Your task to perform on an android device: Search for the new lego star wars 2021 on Target Image 0: 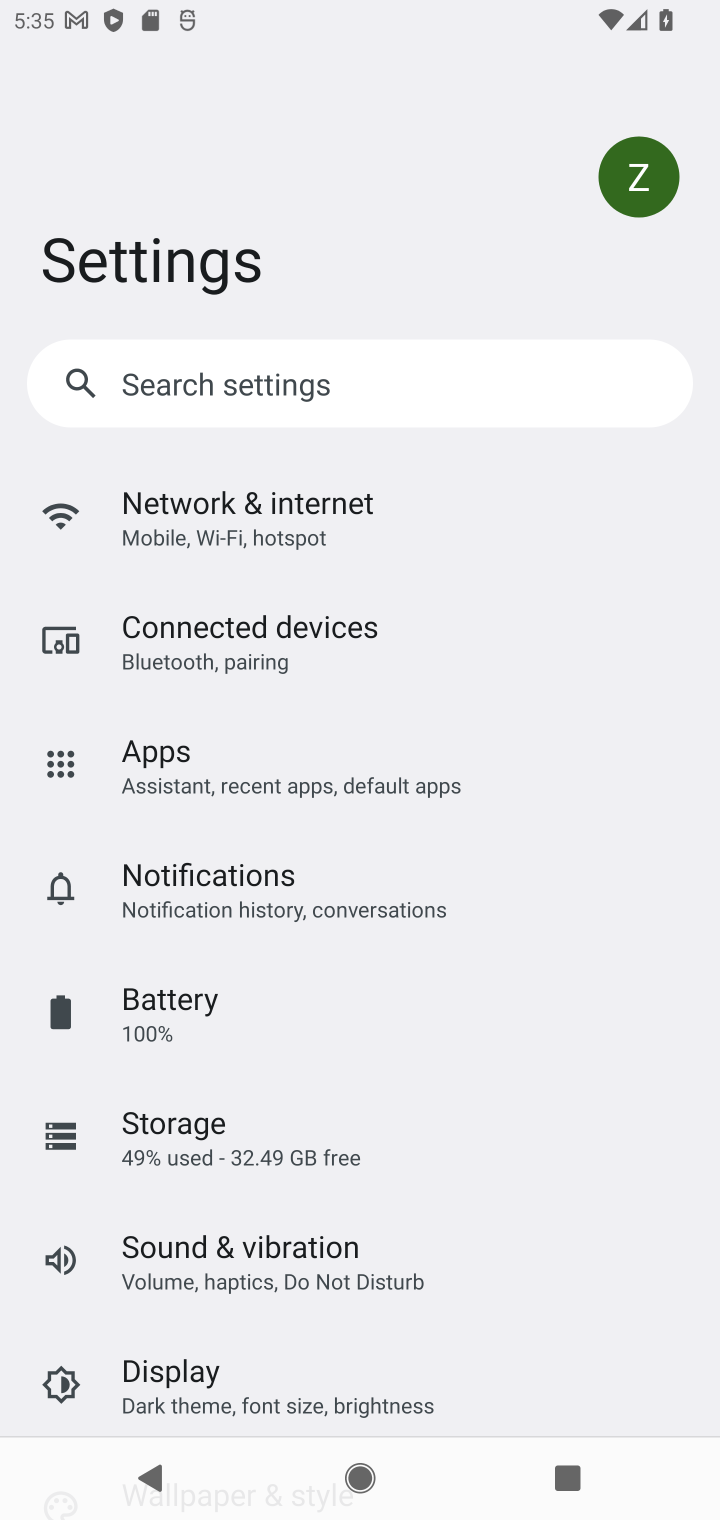
Step 0: press home button
Your task to perform on an android device: Search for the new lego star wars 2021 on Target Image 1: 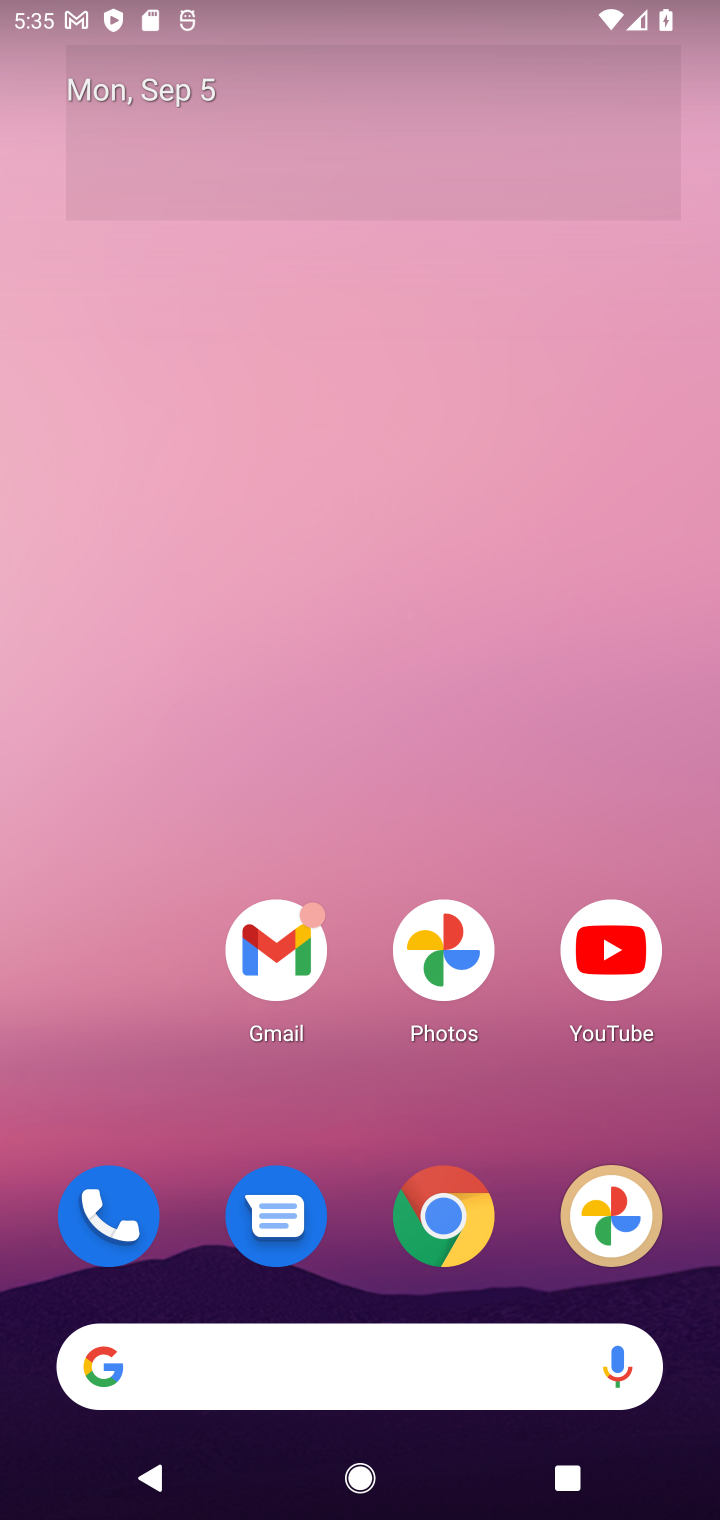
Step 1: click (446, 1233)
Your task to perform on an android device: Search for the new lego star wars 2021 on Target Image 2: 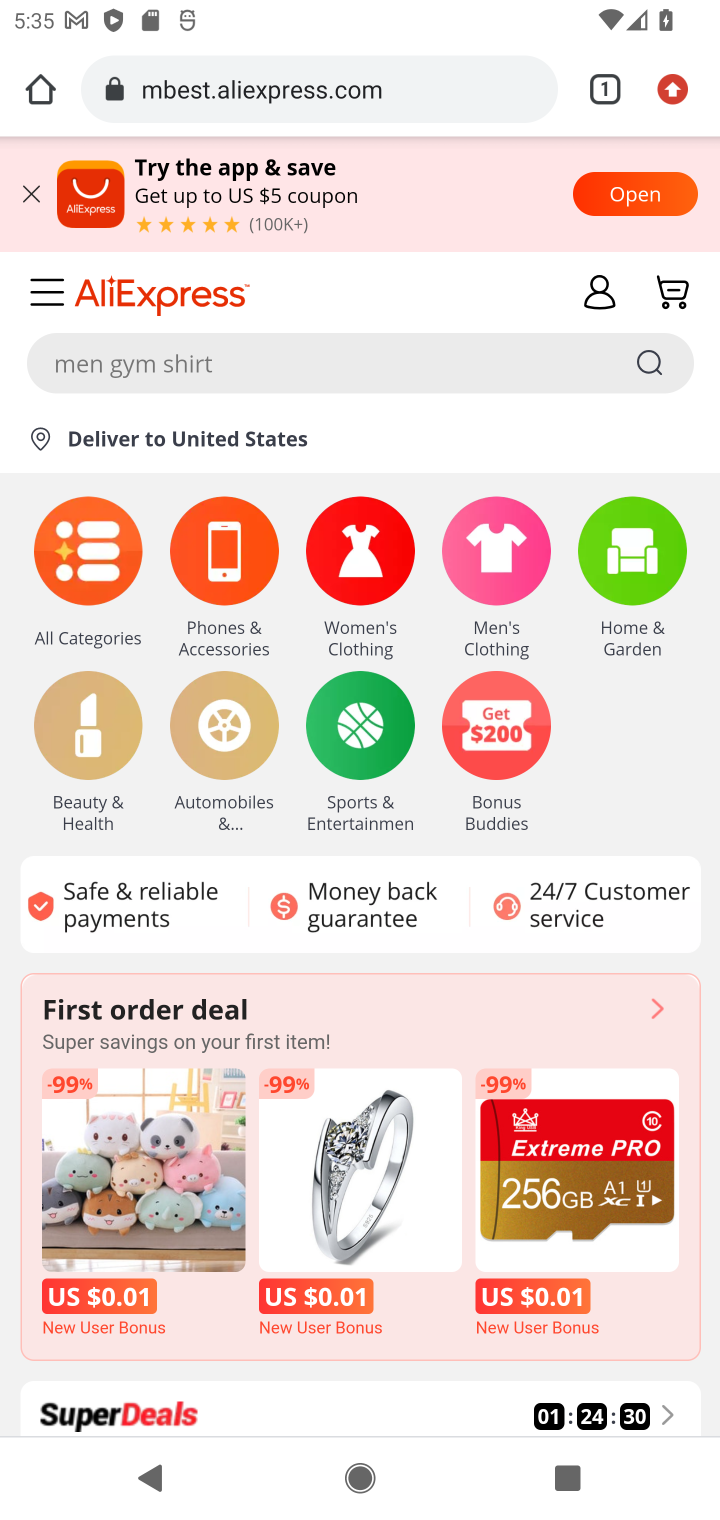
Step 2: click (335, 86)
Your task to perform on an android device: Search for the new lego star wars 2021 on Target Image 3: 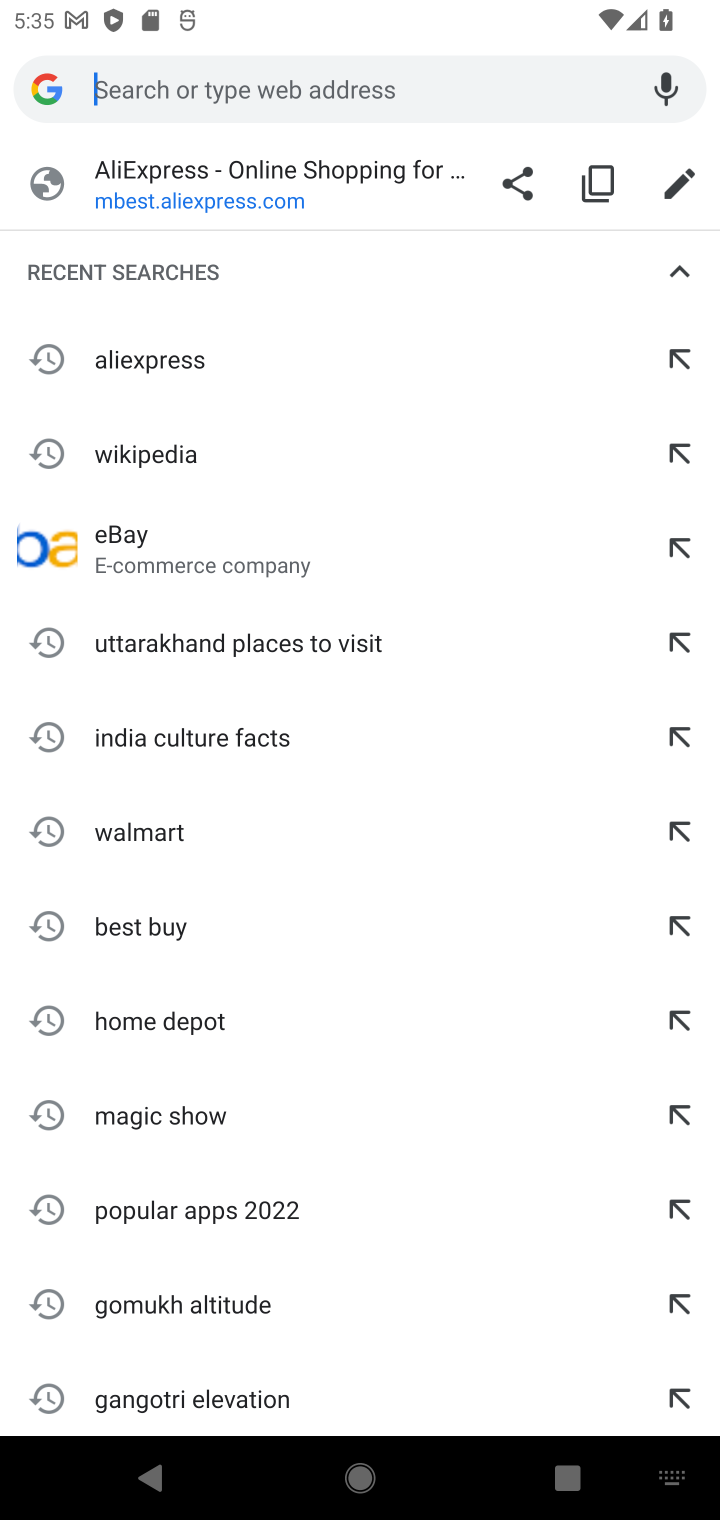
Step 3: type "target"
Your task to perform on an android device: Search for the new lego star wars 2021 on Target Image 4: 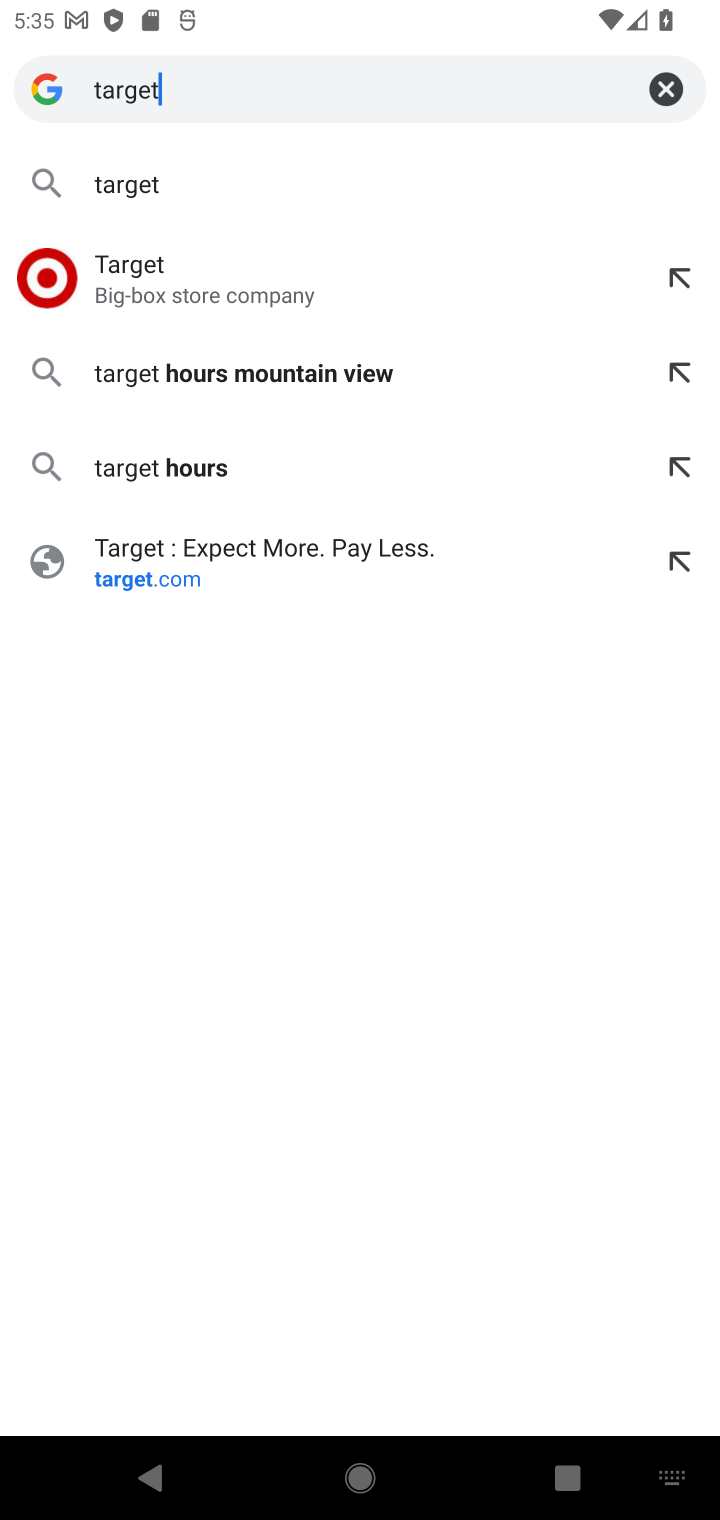
Step 4: click (239, 280)
Your task to perform on an android device: Search for the new lego star wars 2021 on Target Image 5: 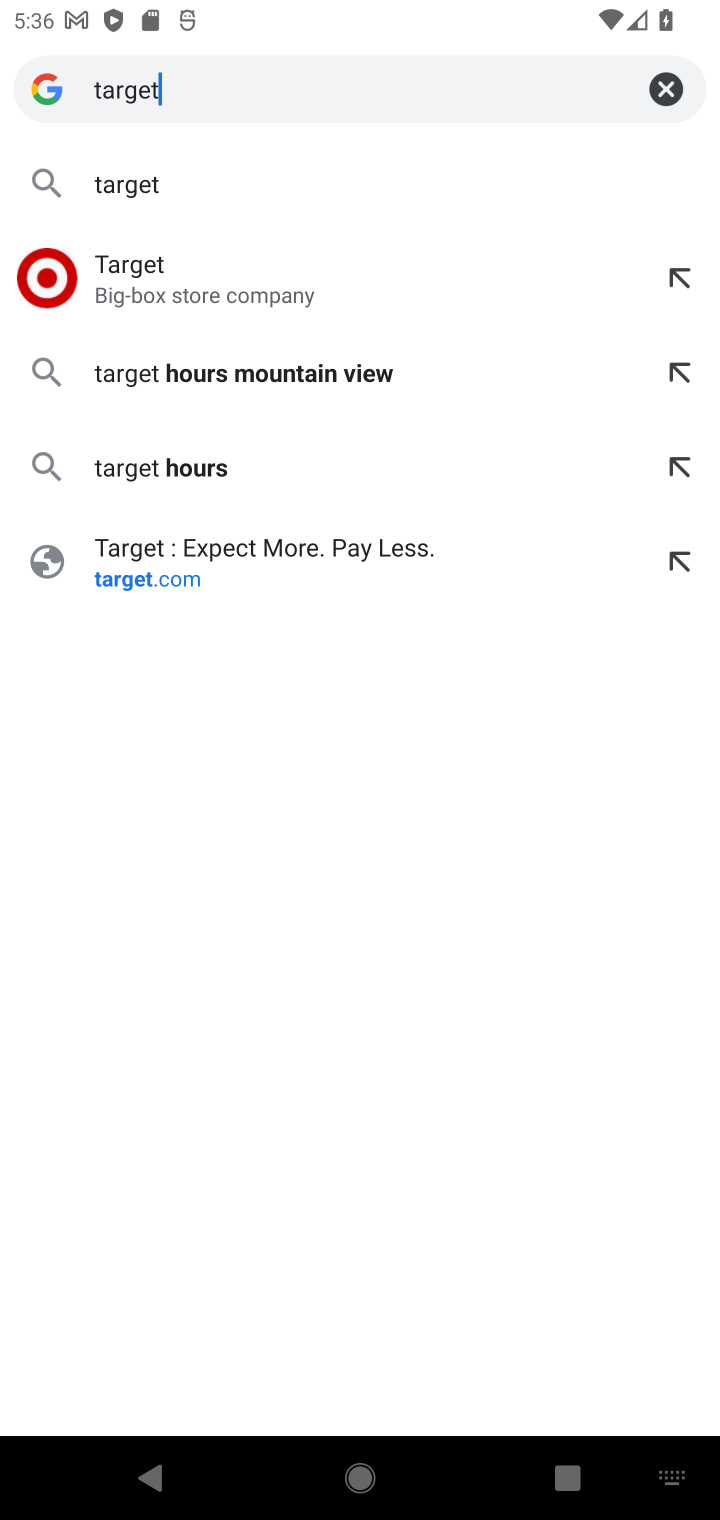
Step 5: click (92, 281)
Your task to perform on an android device: Search for the new lego star wars 2021 on Target Image 6: 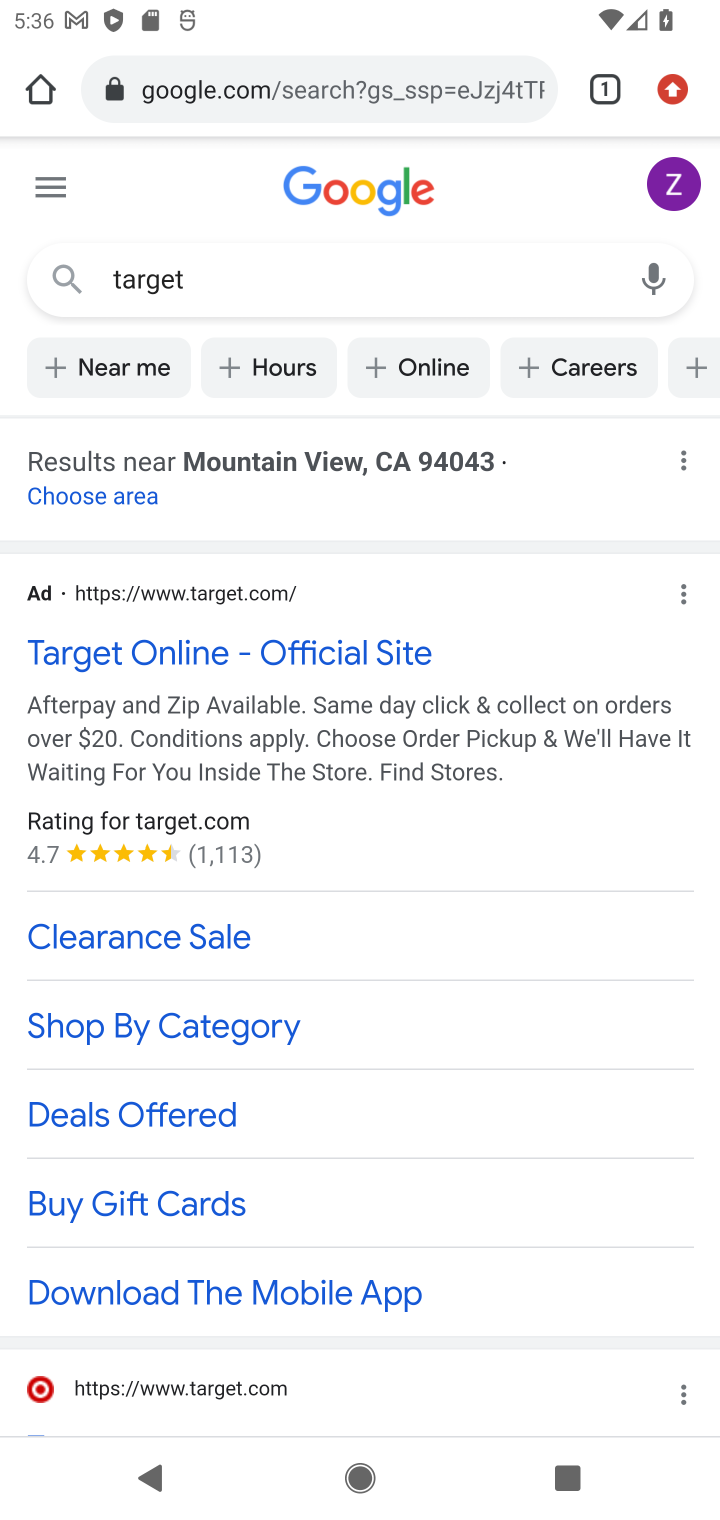
Step 6: click (179, 1396)
Your task to perform on an android device: Search for the new lego star wars 2021 on Target Image 7: 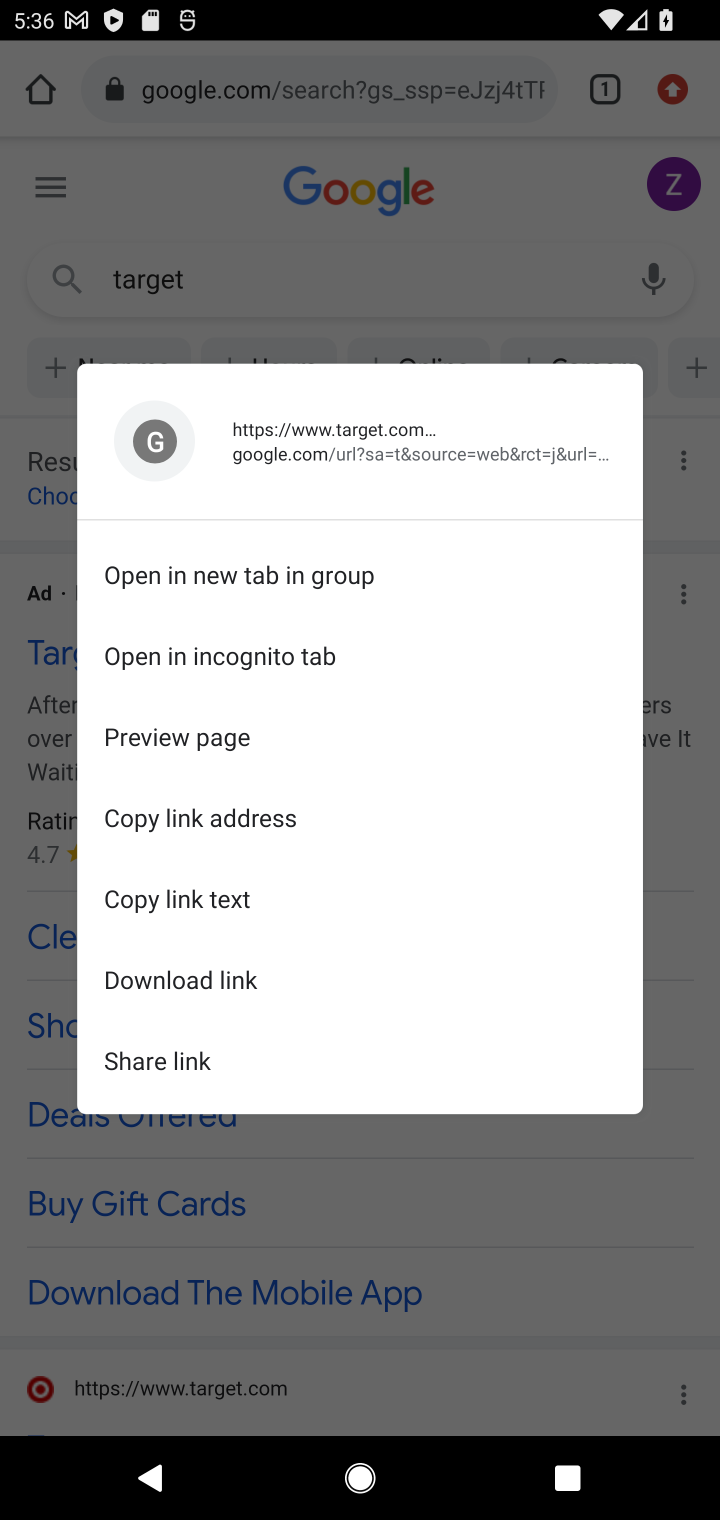
Step 7: click (573, 1239)
Your task to perform on an android device: Search for the new lego star wars 2021 on Target Image 8: 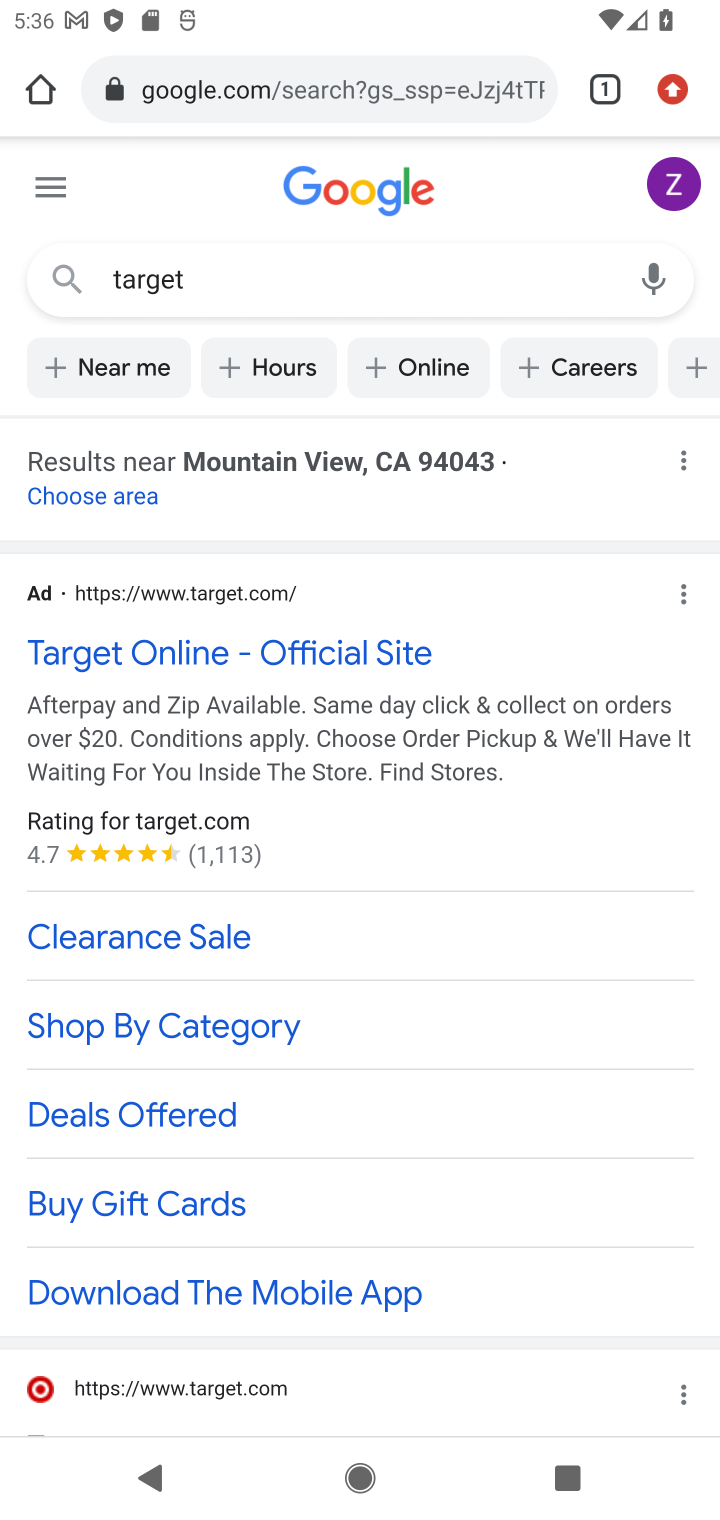
Step 8: click (202, 655)
Your task to perform on an android device: Search for the new lego star wars 2021 on Target Image 9: 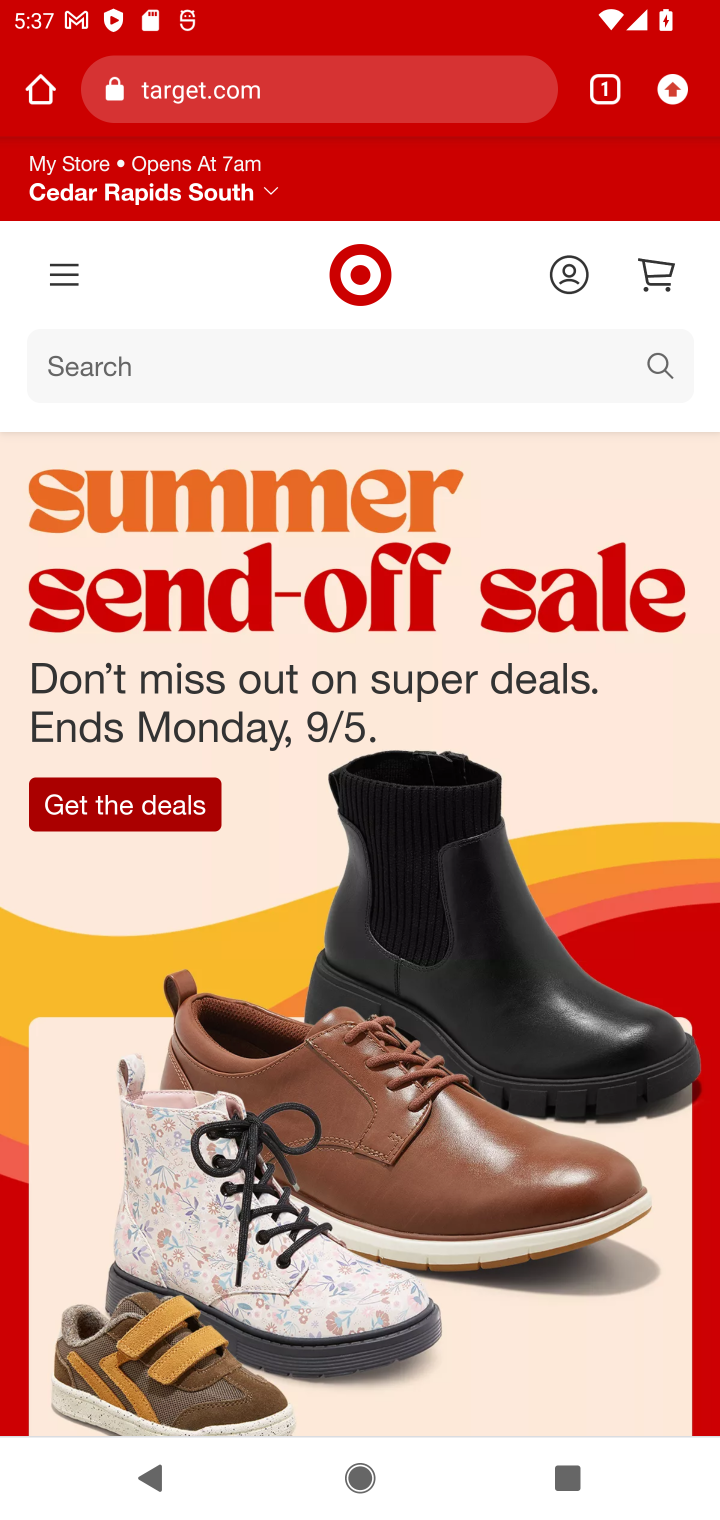
Step 9: type "new lego star wars"
Your task to perform on an android device: Search for the new lego star wars 2021 on Target Image 10: 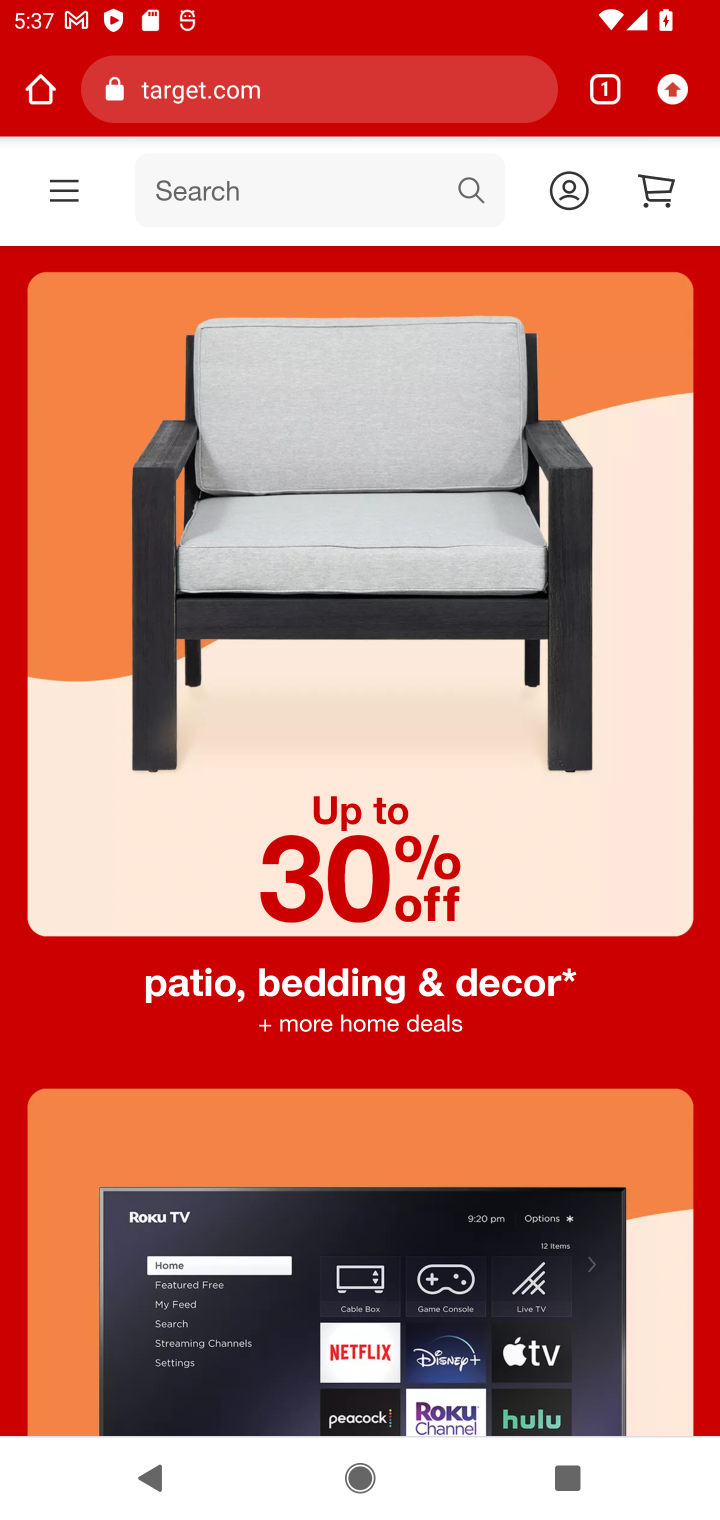
Step 10: task complete